Your task to perform on an android device: Go to Wikipedia Image 0: 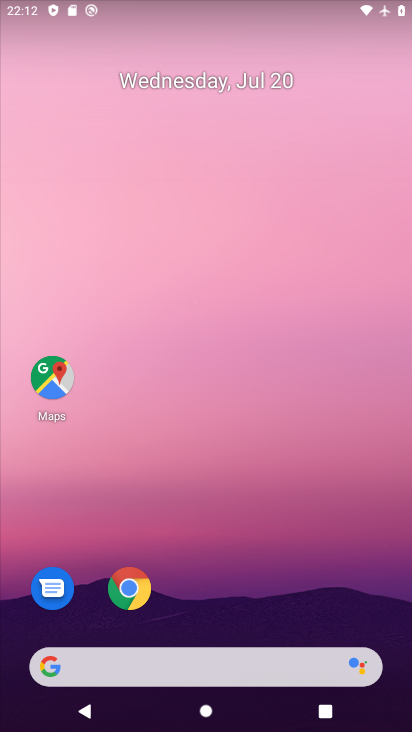
Step 0: click (132, 593)
Your task to perform on an android device: Go to Wikipedia Image 1: 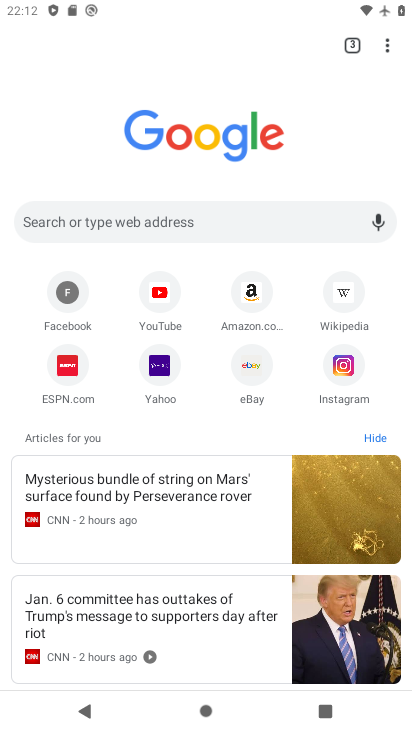
Step 1: click (116, 216)
Your task to perform on an android device: Go to Wikipedia Image 2: 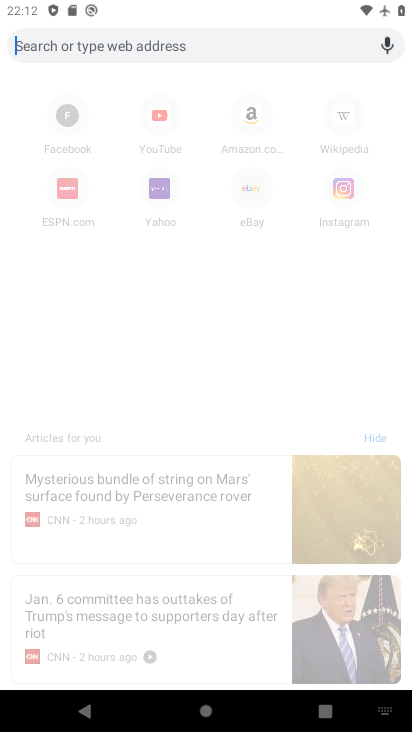
Step 2: type "wikipedia"
Your task to perform on an android device: Go to Wikipedia Image 3: 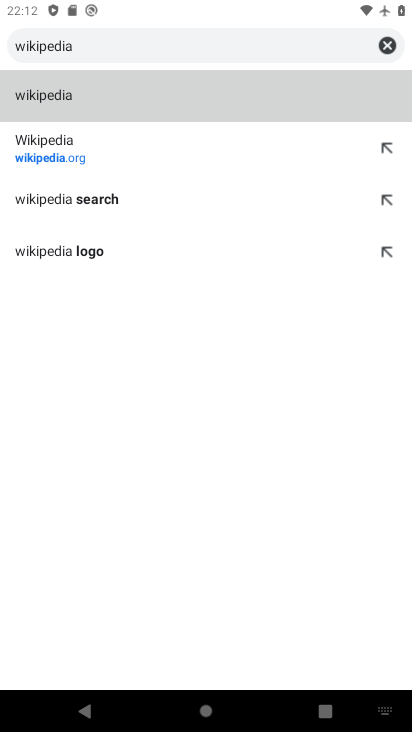
Step 3: click (70, 90)
Your task to perform on an android device: Go to Wikipedia Image 4: 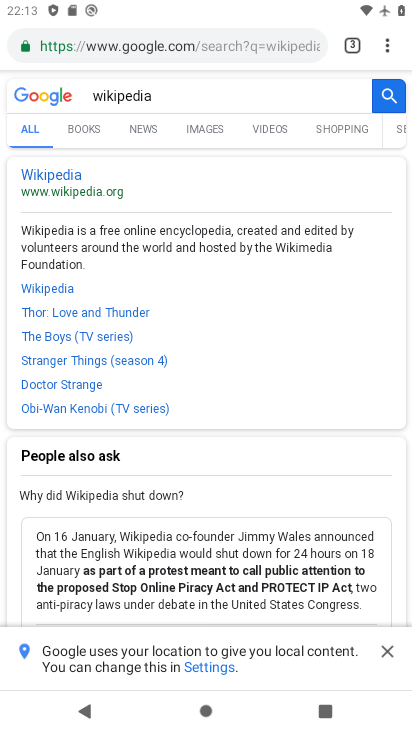
Step 4: click (46, 184)
Your task to perform on an android device: Go to Wikipedia Image 5: 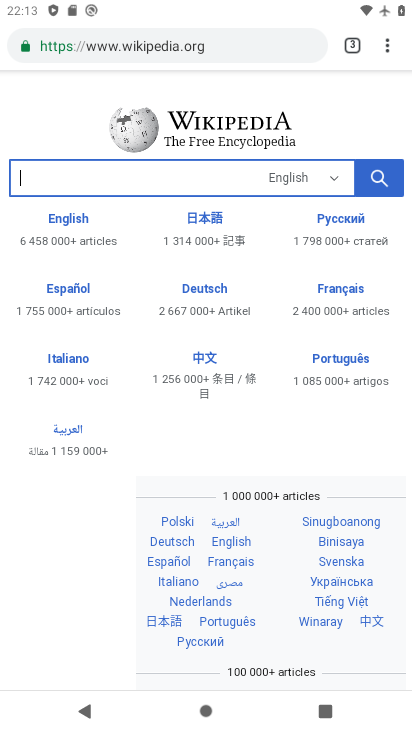
Step 5: task complete